Your task to perform on an android device: Do I have any events this weekend? Image 0: 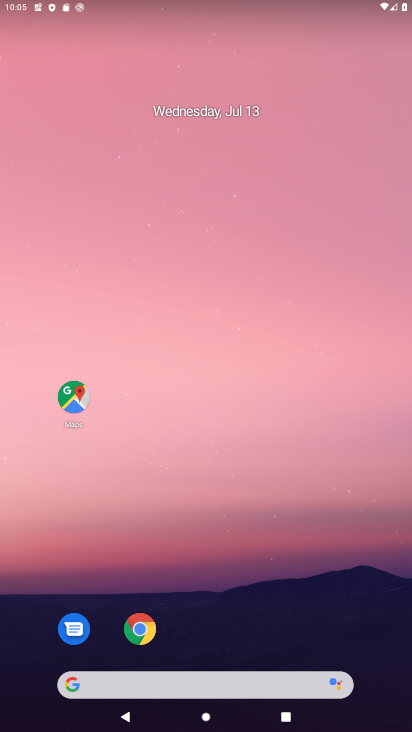
Step 0: drag from (219, 636) to (190, 42)
Your task to perform on an android device: Do I have any events this weekend? Image 1: 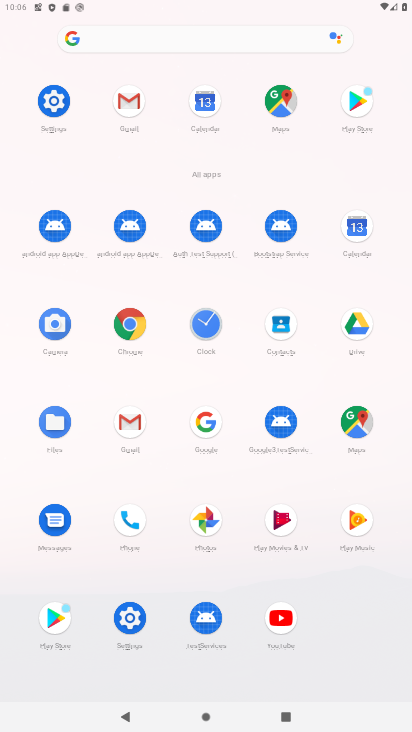
Step 1: click (359, 220)
Your task to perform on an android device: Do I have any events this weekend? Image 2: 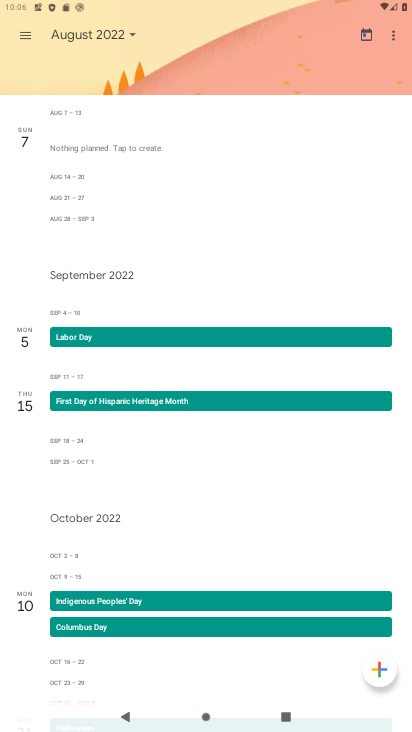
Step 2: click (116, 35)
Your task to perform on an android device: Do I have any events this weekend? Image 3: 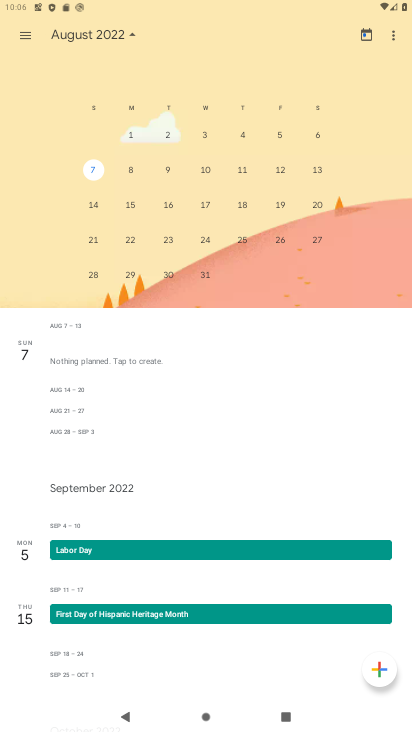
Step 3: click (134, 30)
Your task to perform on an android device: Do I have any events this weekend? Image 4: 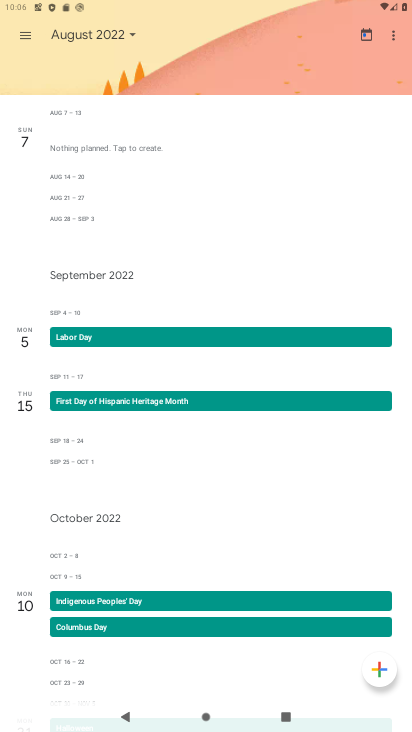
Step 4: click (125, 33)
Your task to perform on an android device: Do I have any events this weekend? Image 5: 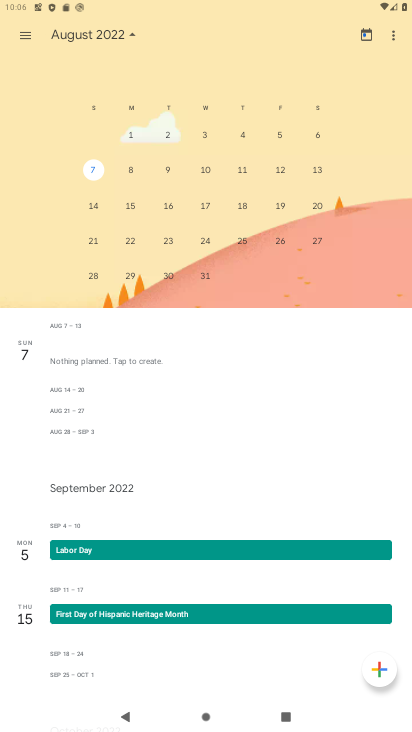
Step 5: drag from (109, 193) to (392, 241)
Your task to perform on an android device: Do I have any events this weekend? Image 6: 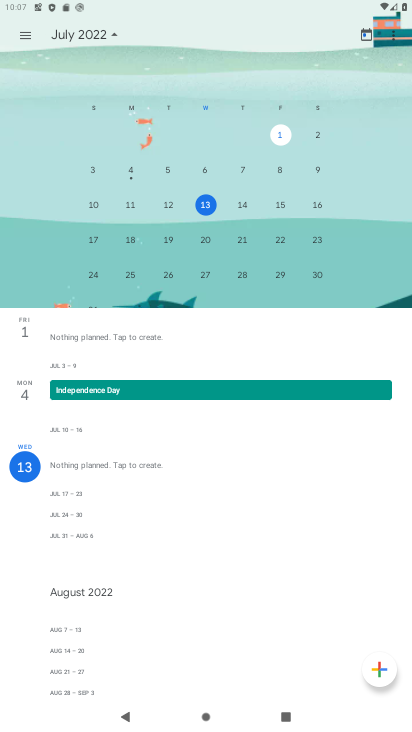
Step 6: click (26, 33)
Your task to perform on an android device: Do I have any events this weekend? Image 7: 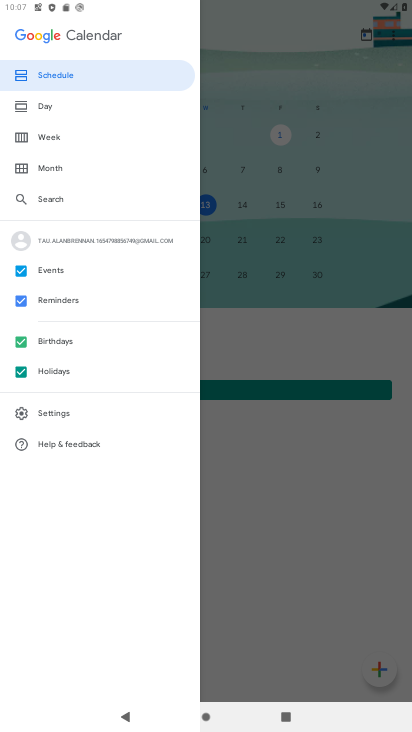
Step 7: click (49, 135)
Your task to perform on an android device: Do I have any events this weekend? Image 8: 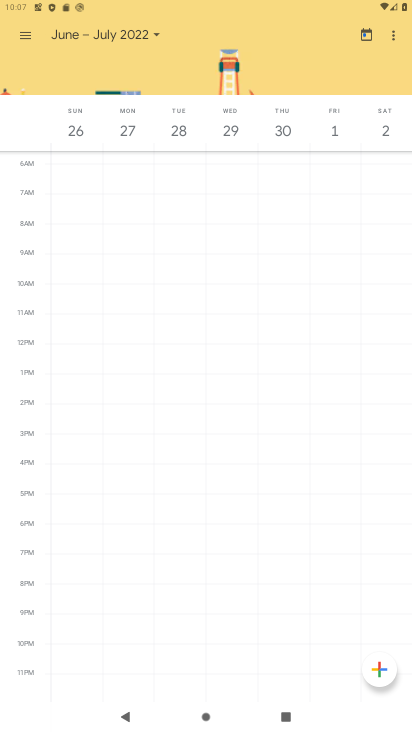
Step 8: drag from (78, 130) to (404, 136)
Your task to perform on an android device: Do I have any events this weekend? Image 9: 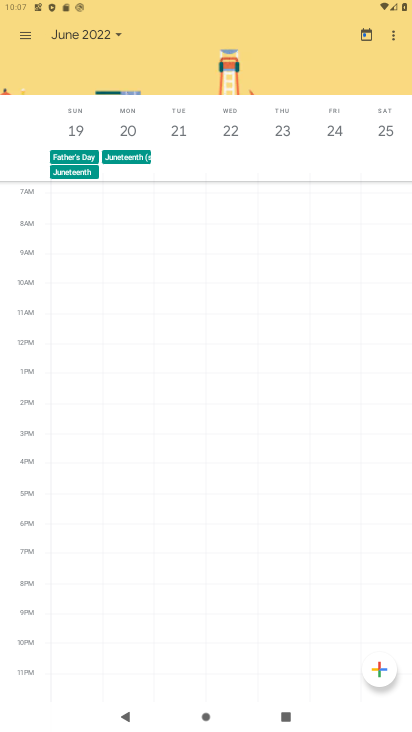
Step 9: drag from (71, 136) to (408, 143)
Your task to perform on an android device: Do I have any events this weekend? Image 10: 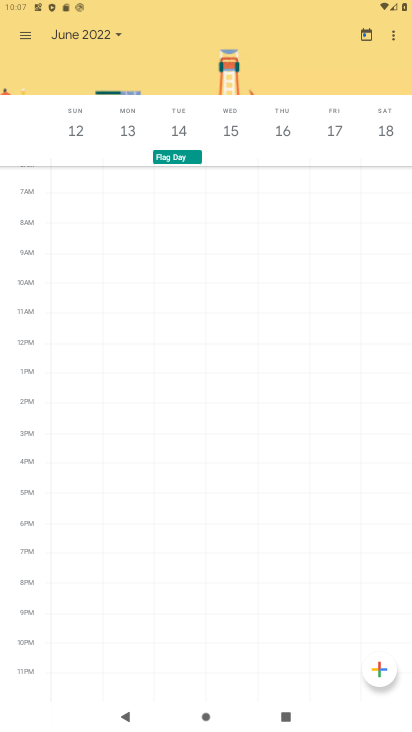
Step 10: click (116, 31)
Your task to perform on an android device: Do I have any events this weekend? Image 11: 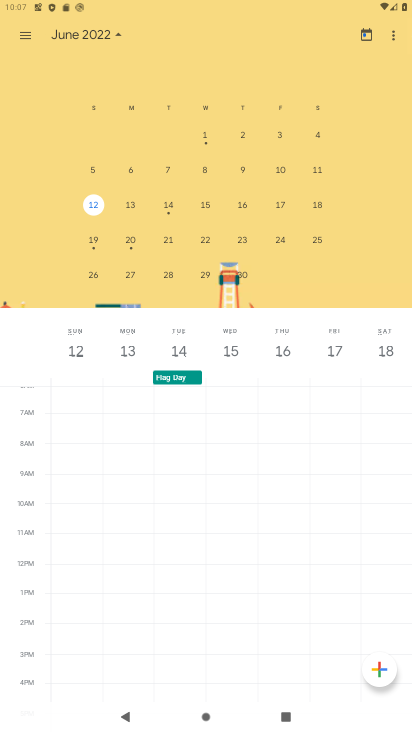
Step 11: drag from (292, 195) to (31, 201)
Your task to perform on an android device: Do I have any events this weekend? Image 12: 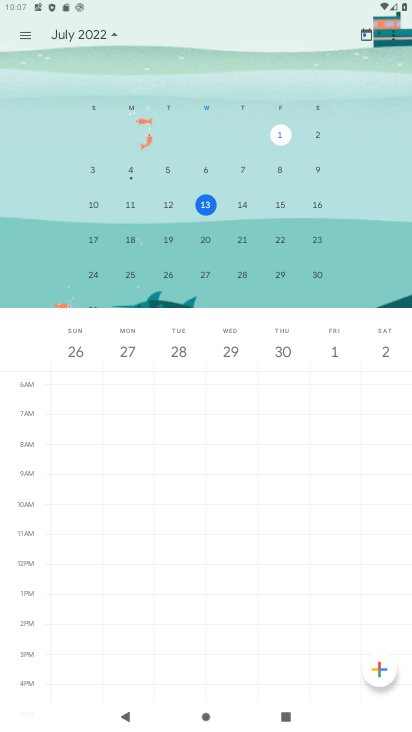
Step 12: click (212, 201)
Your task to perform on an android device: Do I have any events this weekend? Image 13: 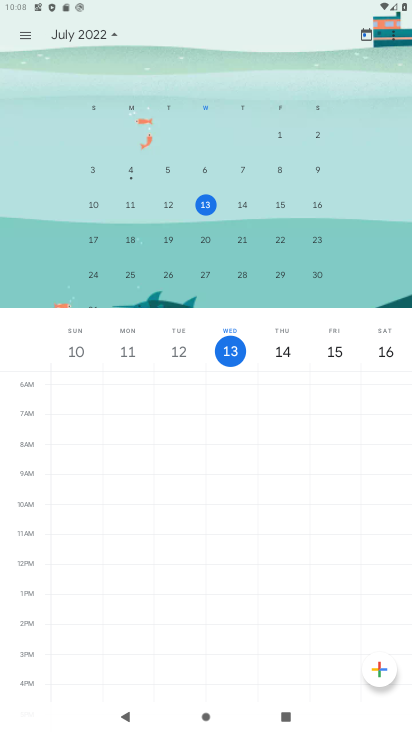
Step 13: click (116, 34)
Your task to perform on an android device: Do I have any events this weekend? Image 14: 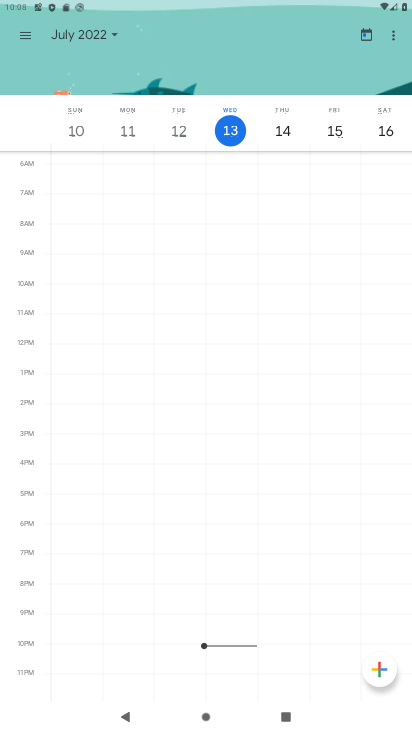
Step 14: task complete